Your task to perform on an android device: Open Wikipedia Image 0: 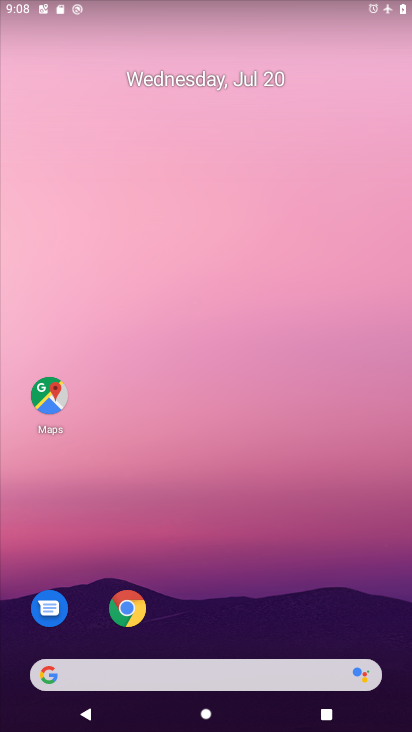
Step 0: drag from (200, 636) to (188, 247)
Your task to perform on an android device: Open Wikipedia Image 1: 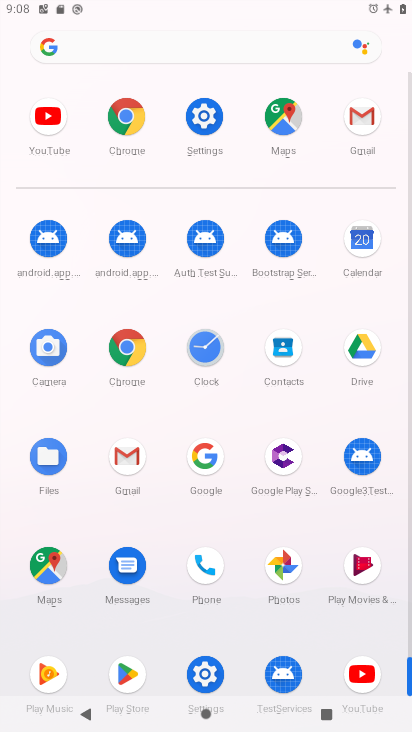
Step 1: click (123, 112)
Your task to perform on an android device: Open Wikipedia Image 2: 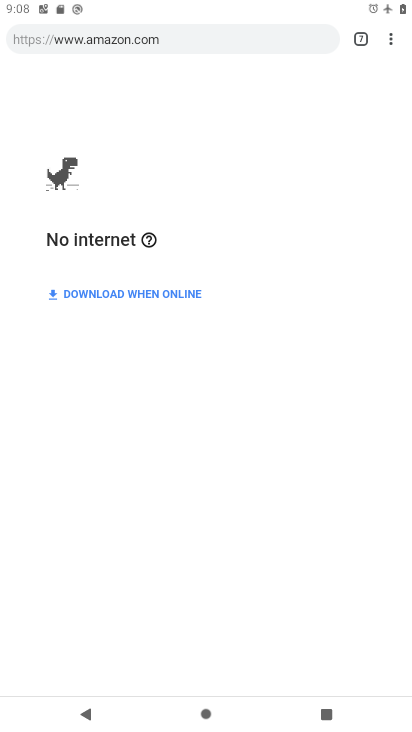
Step 2: click (401, 32)
Your task to perform on an android device: Open Wikipedia Image 3: 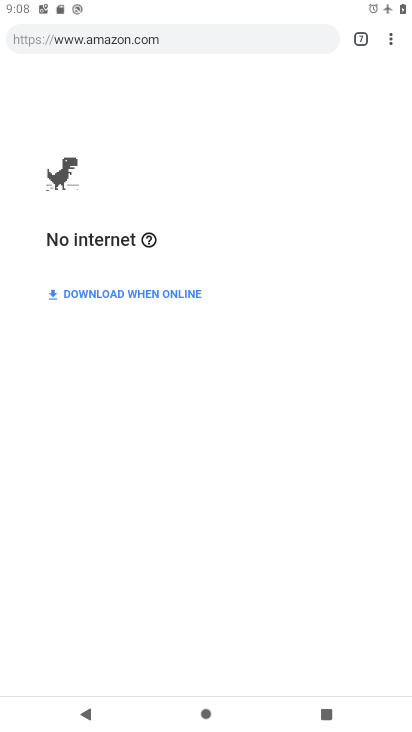
Step 3: click (396, 30)
Your task to perform on an android device: Open Wikipedia Image 4: 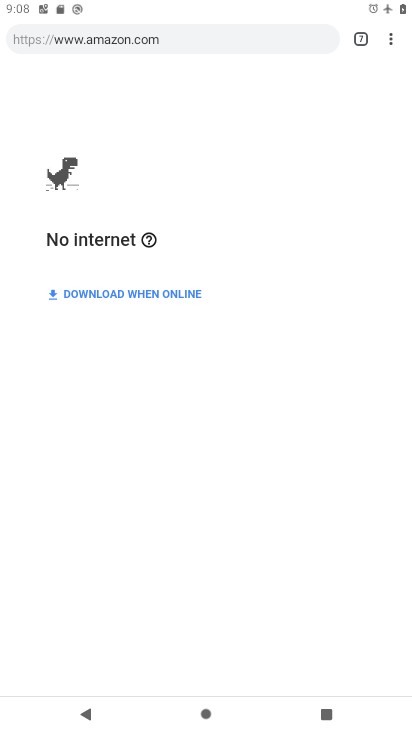
Step 4: click (394, 34)
Your task to perform on an android device: Open Wikipedia Image 5: 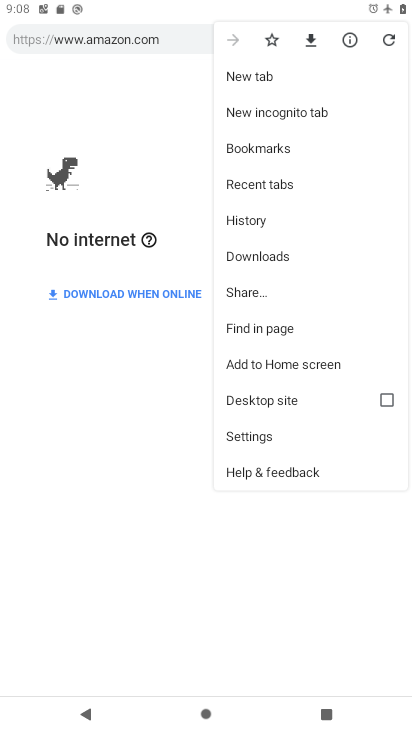
Step 5: click (280, 76)
Your task to perform on an android device: Open Wikipedia Image 6: 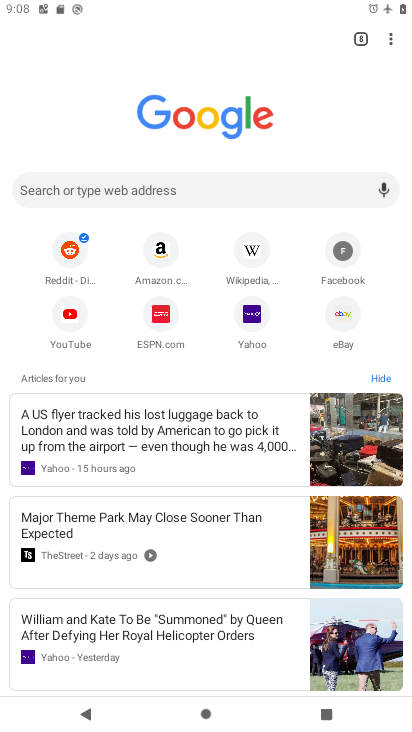
Step 6: click (248, 252)
Your task to perform on an android device: Open Wikipedia Image 7: 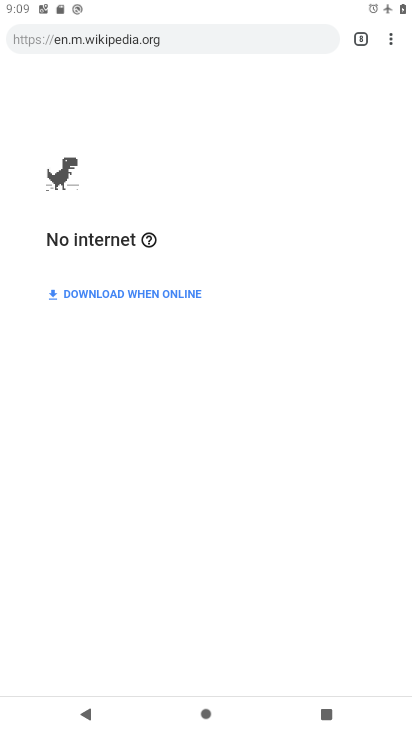
Step 7: task complete